Your task to perform on an android device: find photos in the google photos app Image 0: 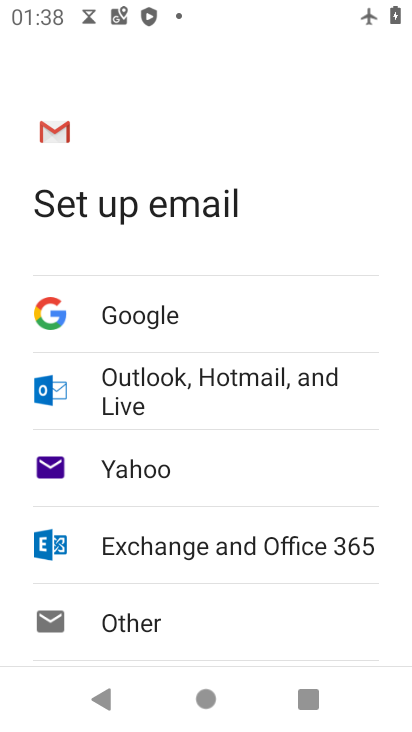
Step 0: press home button
Your task to perform on an android device: find photos in the google photos app Image 1: 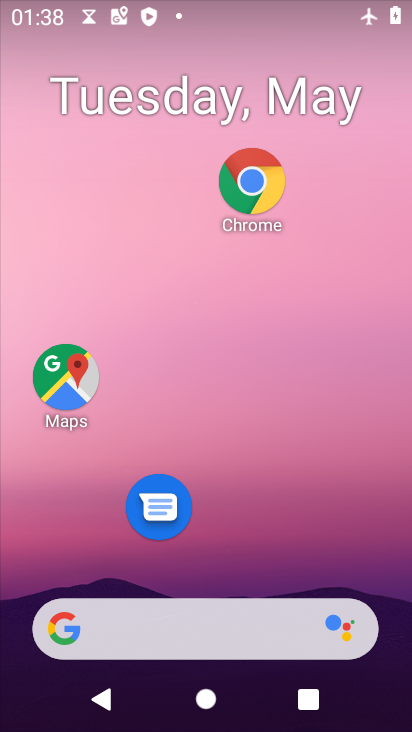
Step 1: drag from (294, 482) to (335, 224)
Your task to perform on an android device: find photos in the google photos app Image 2: 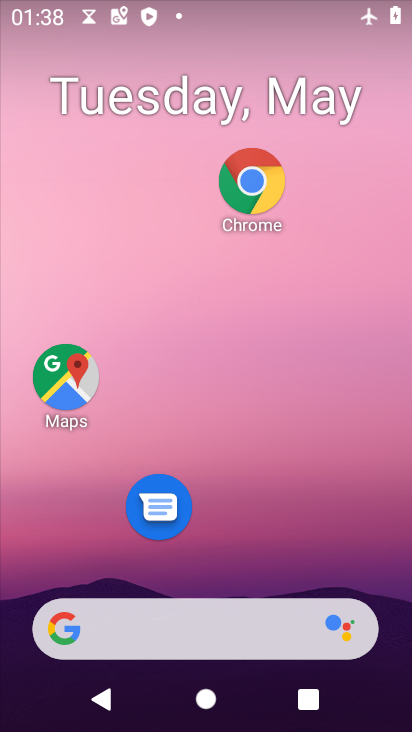
Step 2: drag from (260, 561) to (306, 247)
Your task to perform on an android device: find photos in the google photos app Image 3: 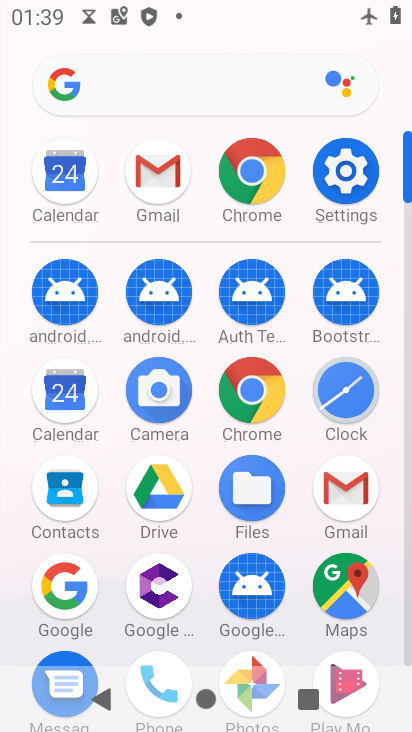
Step 3: drag from (299, 580) to (298, 380)
Your task to perform on an android device: find photos in the google photos app Image 4: 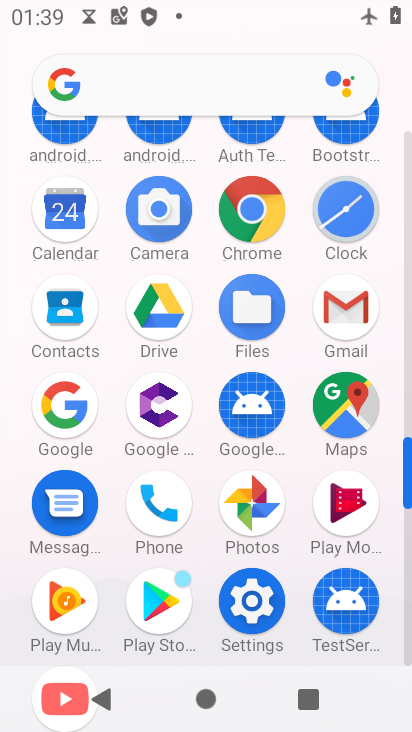
Step 4: click (253, 511)
Your task to perform on an android device: find photos in the google photos app Image 5: 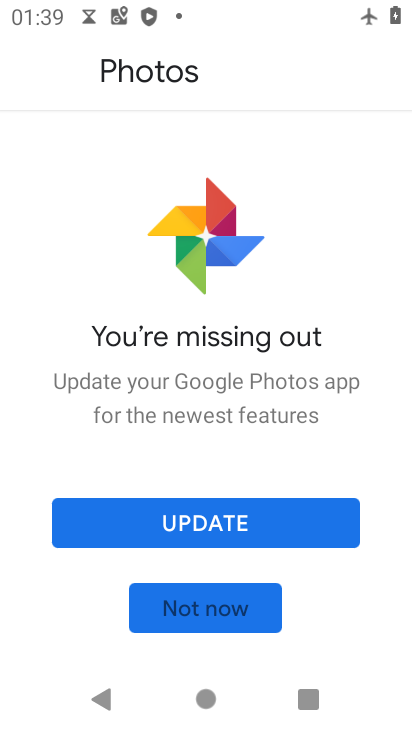
Step 5: click (200, 631)
Your task to perform on an android device: find photos in the google photos app Image 6: 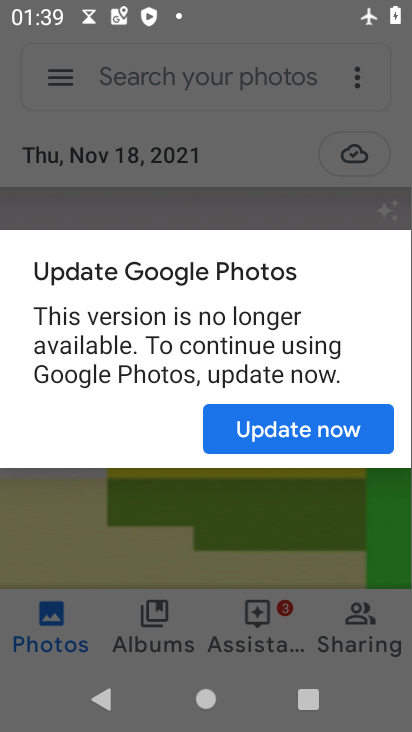
Step 6: click (226, 430)
Your task to perform on an android device: find photos in the google photos app Image 7: 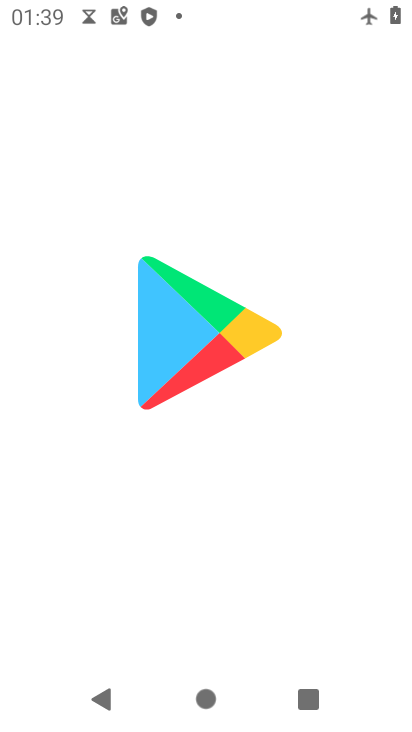
Step 7: task complete